Your task to perform on an android device: toggle improve location accuracy Image 0: 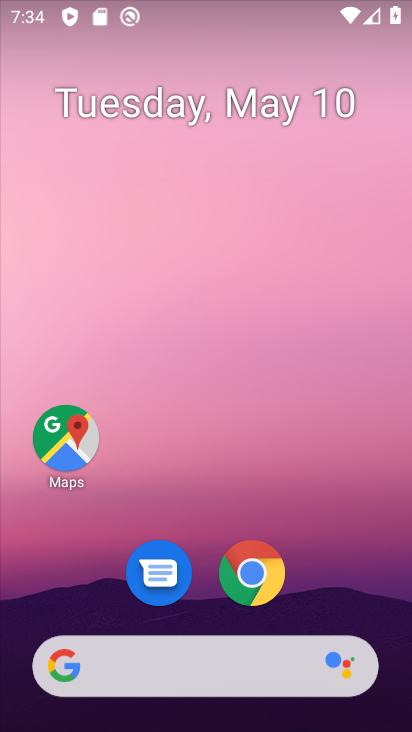
Step 0: drag from (360, 534) to (302, 178)
Your task to perform on an android device: toggle improve location accuracy Image 1: 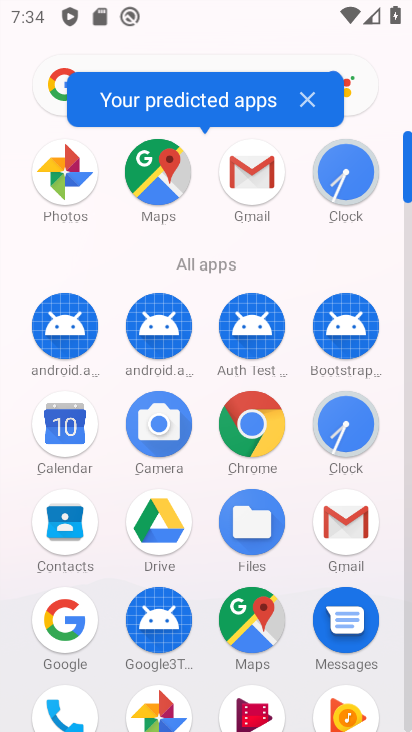
Step 1: drag from (303, 273) to (251, 22)
Your task to perform on an android device: toggle improve location accuracy Image 2: 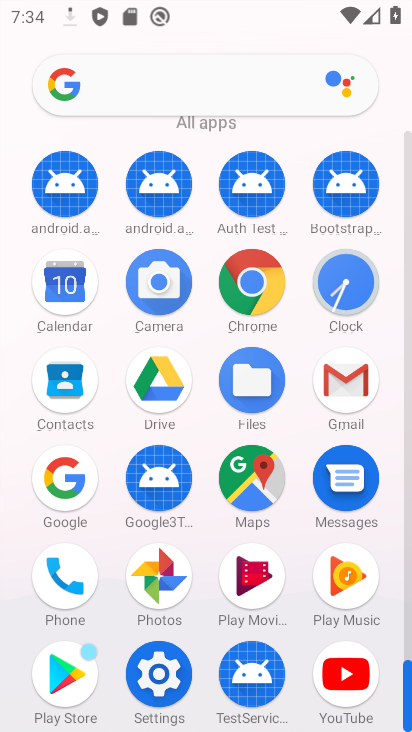
Step 2: click (170, 679)
Your task to perform on an android device: toggle improve location accuracy Image 3: 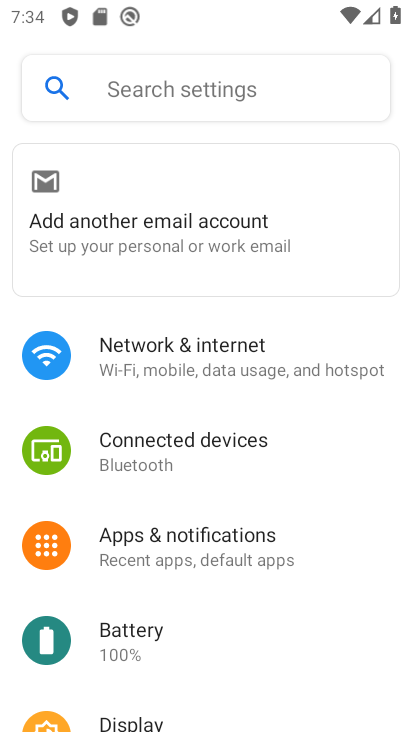
Step 3: drag from (325, 519) to (261, 184)
Your task to perform on an android device: toggle improve location accuracy Image 4: 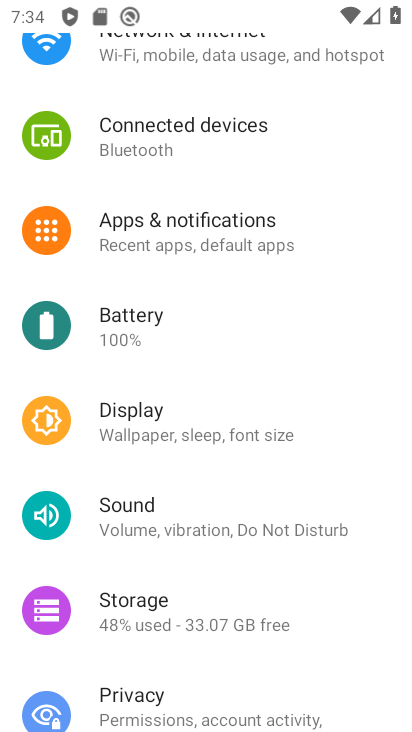
Step 4: drag from (205, 480) to (146, 284)
Your task to perform on an android device: toggle improve location accuracy Image 5: 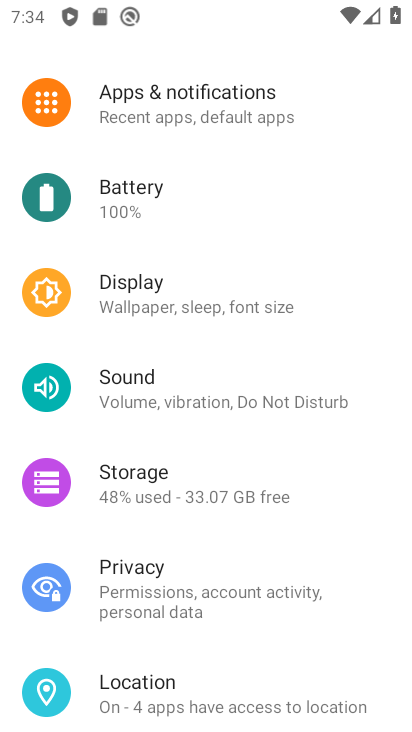
Step 5: click (229, 714)
Your task to perform on an android device: toggle improve location accuracy Image 6: 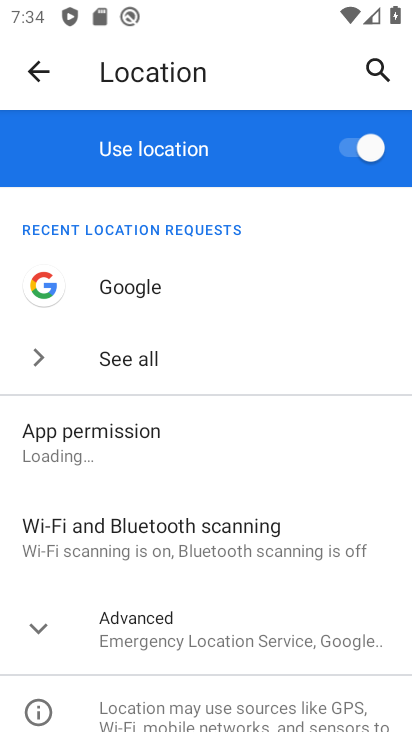
Step 6: click (249, 617)
Your task to perform on an android device: toggle improve location accuracy Image 7: 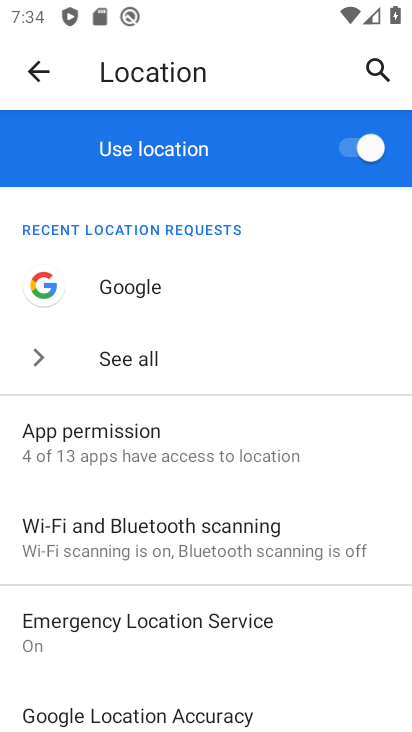
Step 7: drag from (266, 602) to (212, 334)
Your task to perform on an android device: toggle improve location accuracy Image 8: 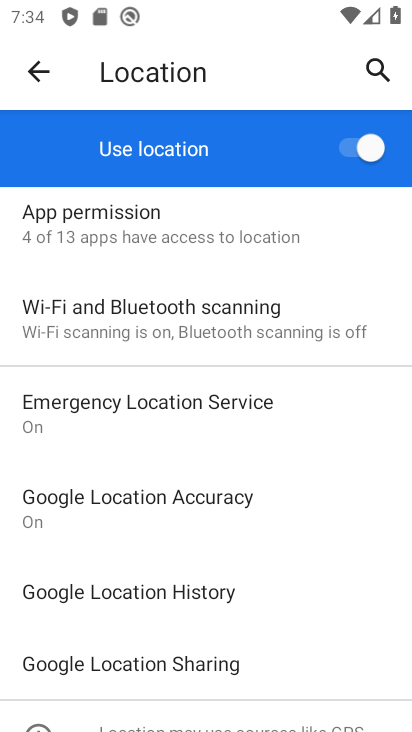
Step 8: click (189, 516)
Your task to perform on an android device: toggle improve location accuracy Image 9: 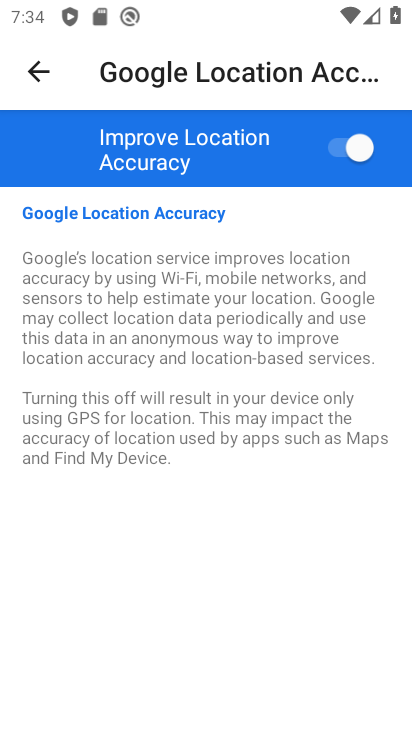
Step 9: click (337, 153)
Your task to perform on an android device: toggle improve location accuracy Image 10: 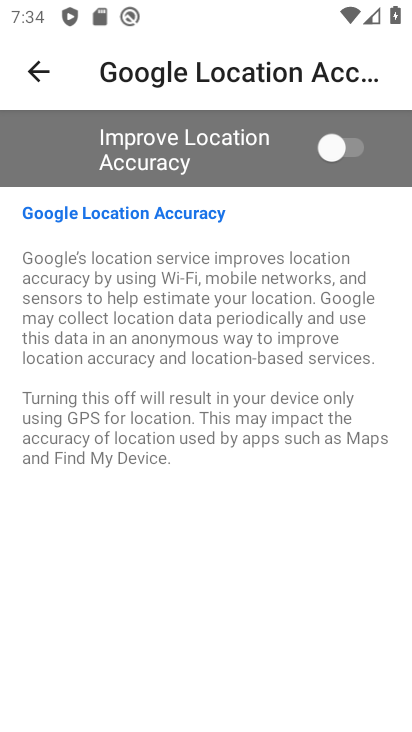
Step 10: task complete